Your task to perform on an android device: Open Youtube and go to the subscriptions tab Image 0: 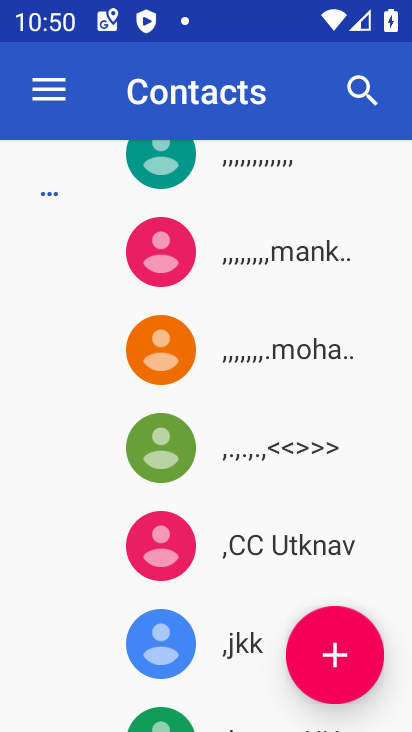
Step 0: press home button
Your task to perform on an android device: Open Youtube and go to the subscriptions tab Image 1: 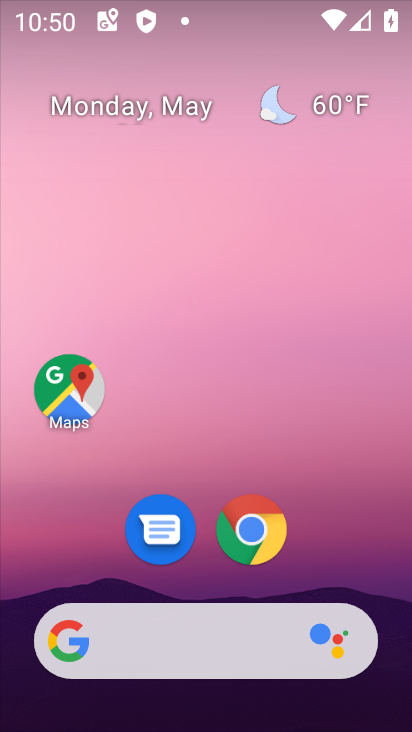
Step 1: drag from (336, 521) to (221, 55)
Your task to perform on an android device: Open Youtube and go to the subscriptions tab Image 2: 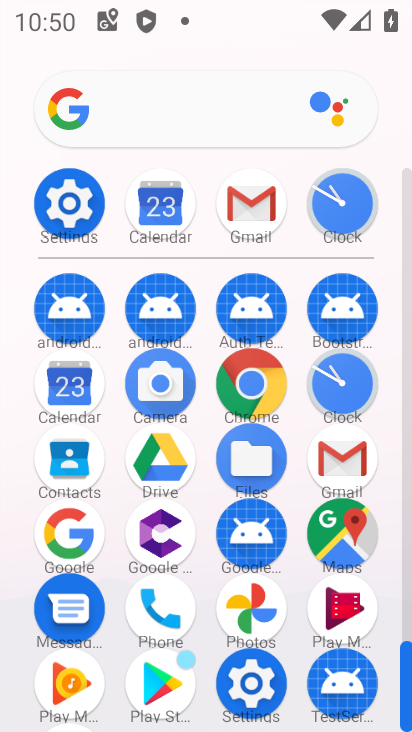
Step 2: drag from (113, 624) to (129, 167)
Your task to perform on an android device: Open Youtube and go to the subscriptions tab Image 3: 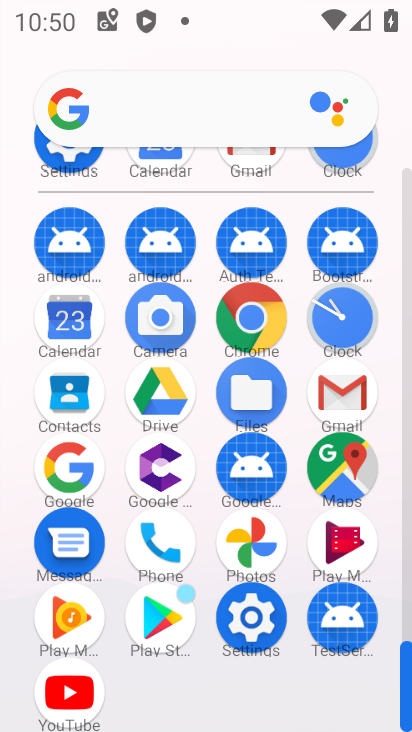
Step 3: click (67, 681)
Your task to perform on an android device: Open Youtube and go to the subscriptions tab Image 4: 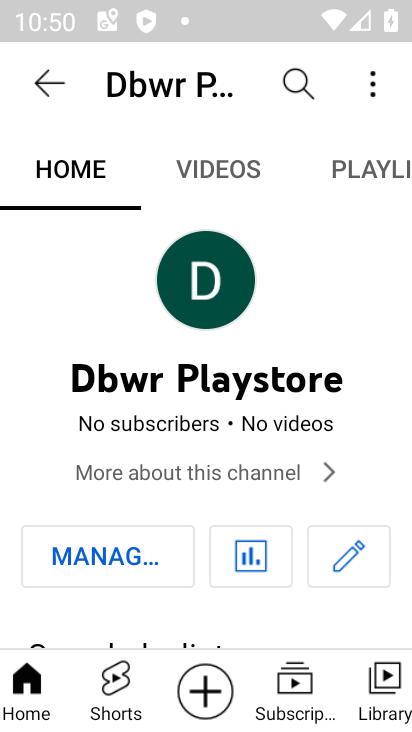
Step 4: click (287, 686)
Your task to perform on an android device: Open Youtube and go to the subscriptions tab Image 5: 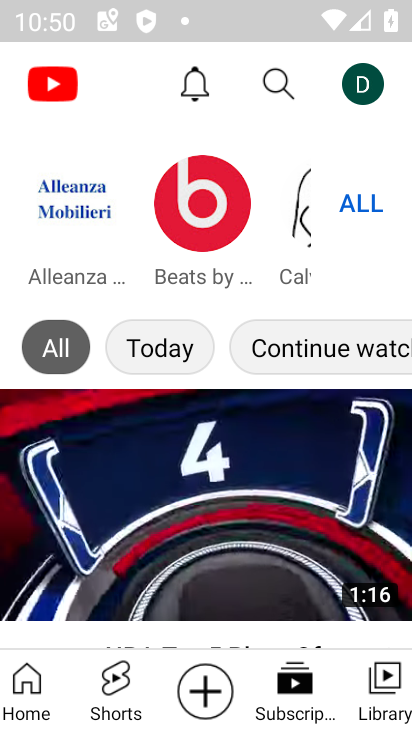
Step 5: task complete